Your task to perform on an android device: Go to Amazon Image 0: 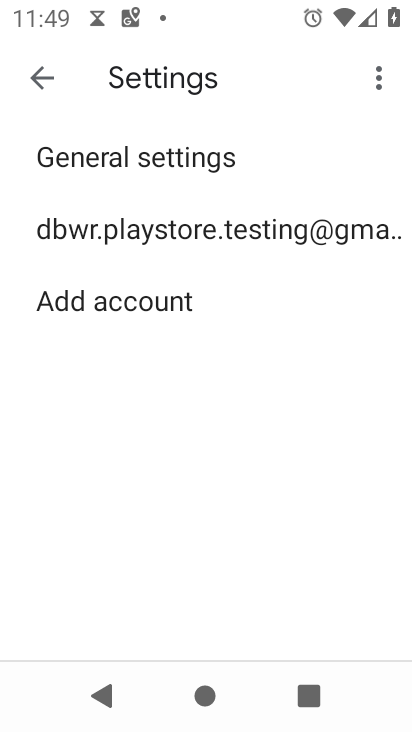
Step 0: press home button
Your task to perform on an android device: Go to Amazon Image 1: 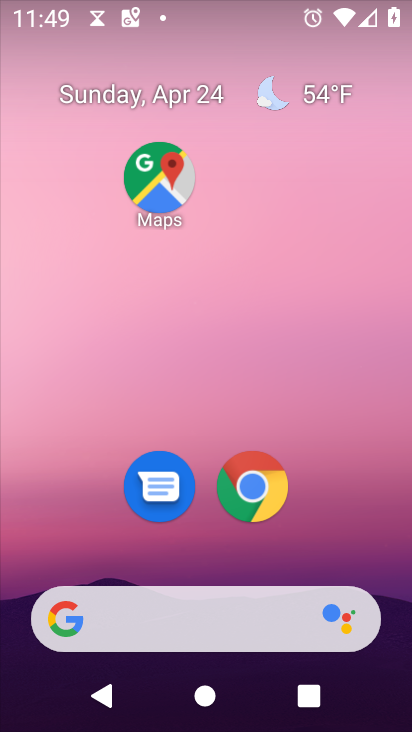
Step 1: click (225, 570)
Your task to perform on an android device: Go to Amazon Image 2: 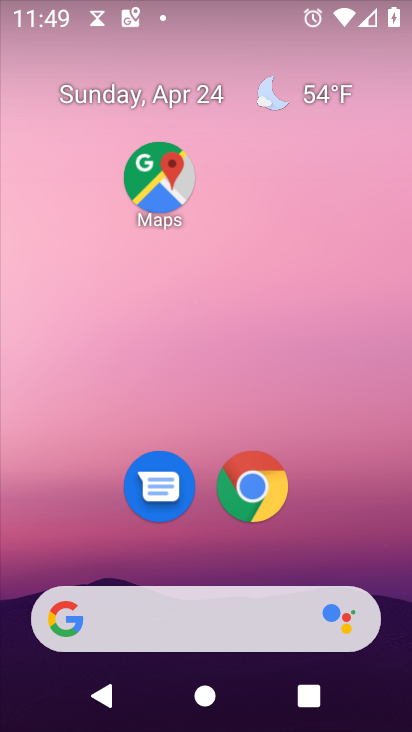
Step 2: click (266, 504)
Your task to perform on an android device: Go to Amazon Image 3: 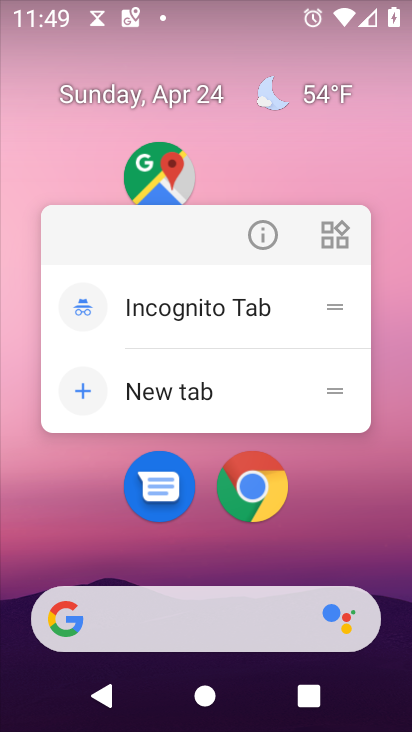
Step 3: click (258, 234)
Your task to perform on an android device: Go to Amazon Image 4: 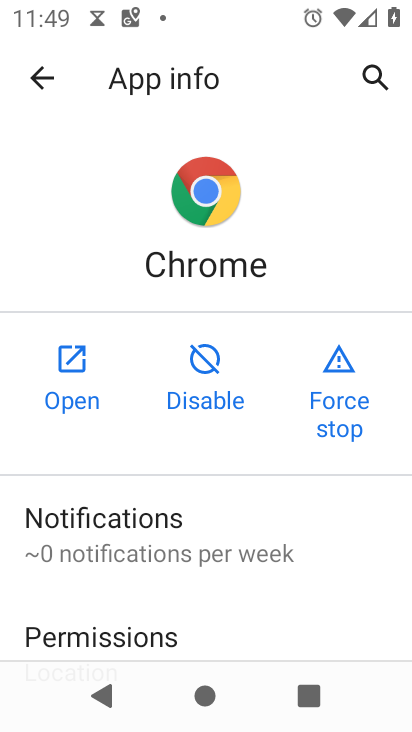
Step 4: click (93, 391)
Your task to perform on an android device: Go to Amazon Image 5: 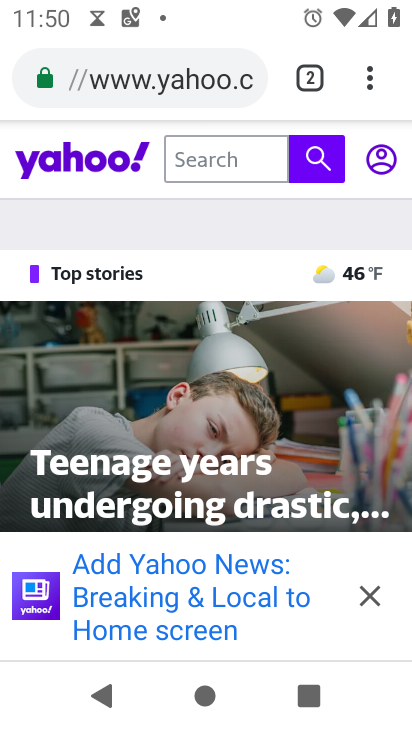
Step 5: click (315, 85)
Your task to perform on an android device: Go to Amazon Image 6: 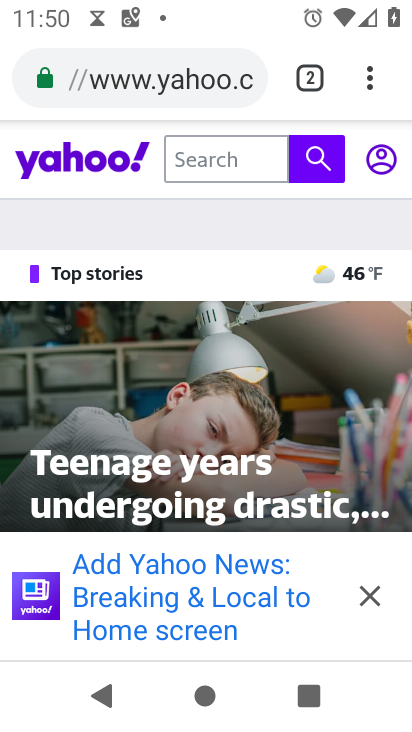
Step 6: click (315, 81)
Your task to perform on an android device: Go to Amazon Image 7: 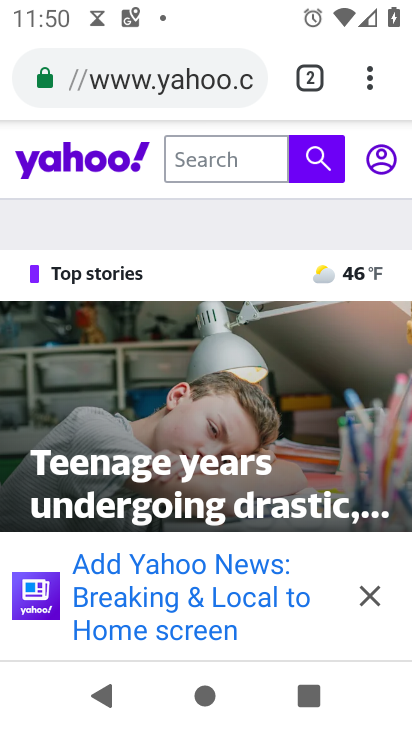
Step 7: click (309, 91)
Your task to perform on an android device: Go to Amazon Image 8: 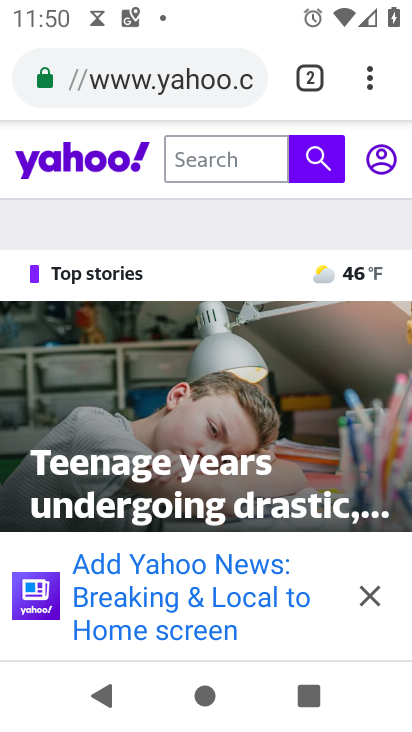
Step 8: click (305, 78)
Your task to perform on an android device: Go to Amazon Image 9: 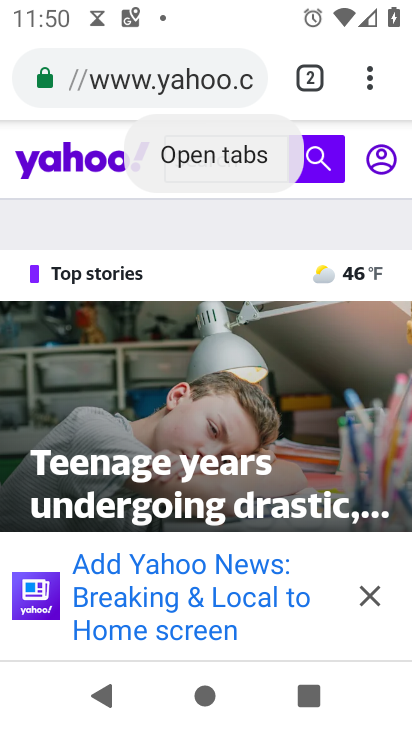
Step 9: click (384, 83)
Your task to perform on an android device: Go to Amazon Image 10: 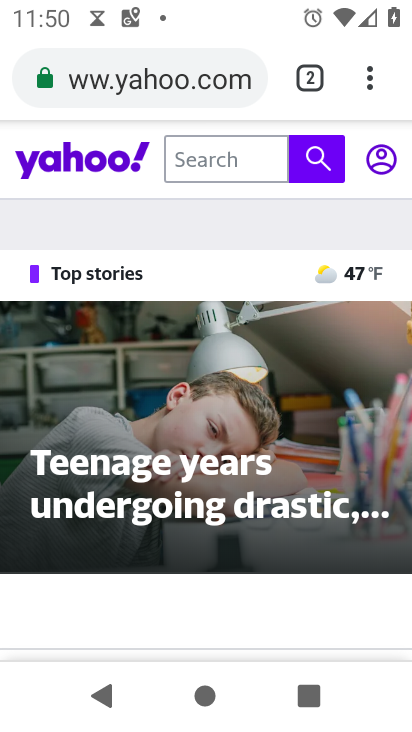
Step 10: click (316, 75)
Your task to perform on an android device: Go to Amazon Image 11: 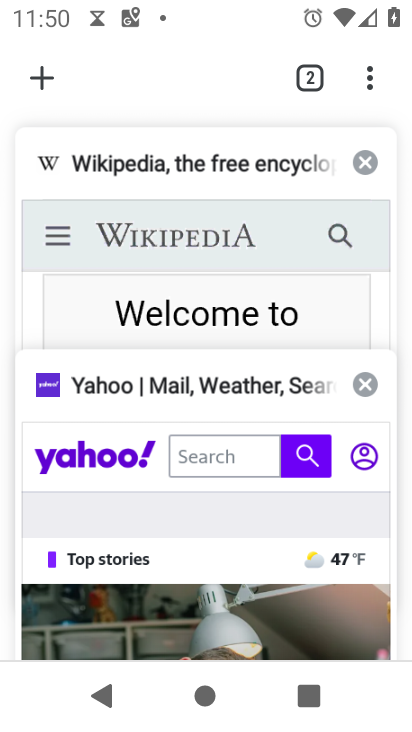
Step 11: click (53, 84)
Your task to perform on an android device: Go to Amazon Image 12: 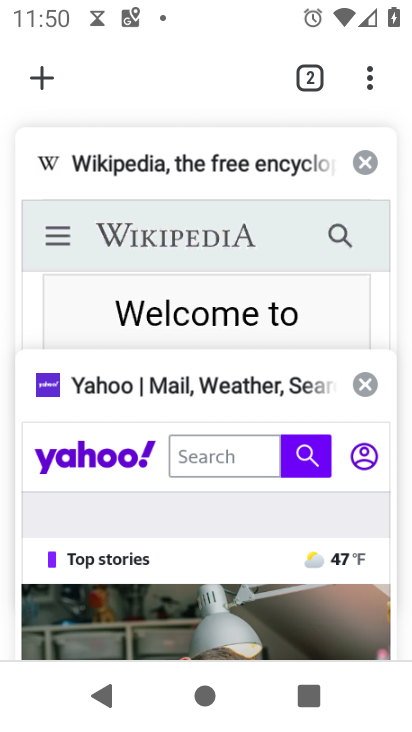
Step 12: click (54, 85)
Your task to perform on an android device: Go to Amazon Image 13: 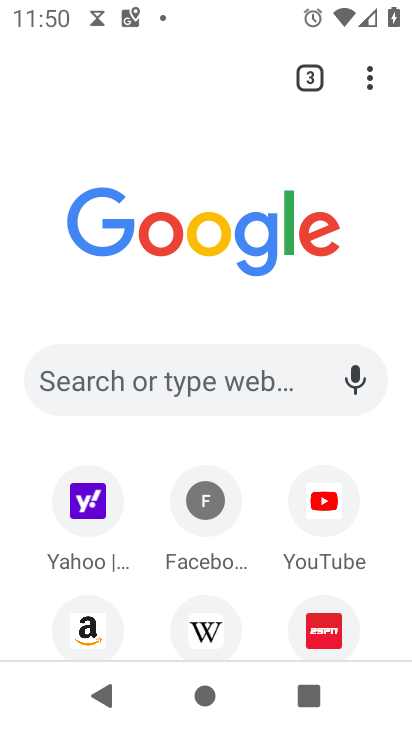
Step 13: click (81, 621)
Your task to perform on an android device: Go to Amazon Image 14: 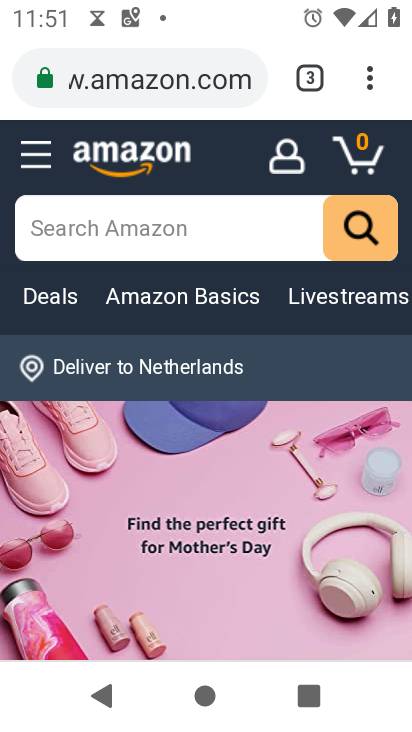
Step 14: task complete